Your task to perform on an android device: What is the recent news? Image 0: 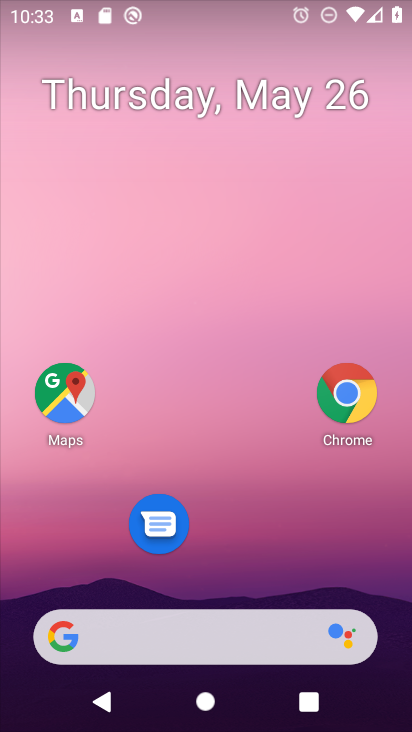
Step 0: click (185, 638)
Your task to perform on an android device: What is the recent news? Image 1: 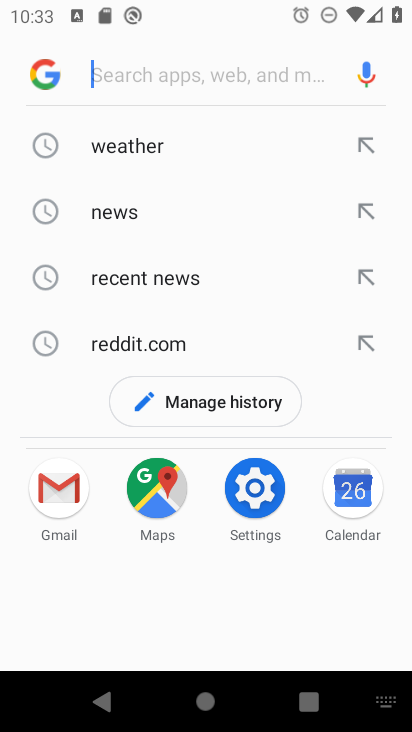
Step 1: click (120, 270)
Your task to perform on an android device: What is the recent news? Image 2: 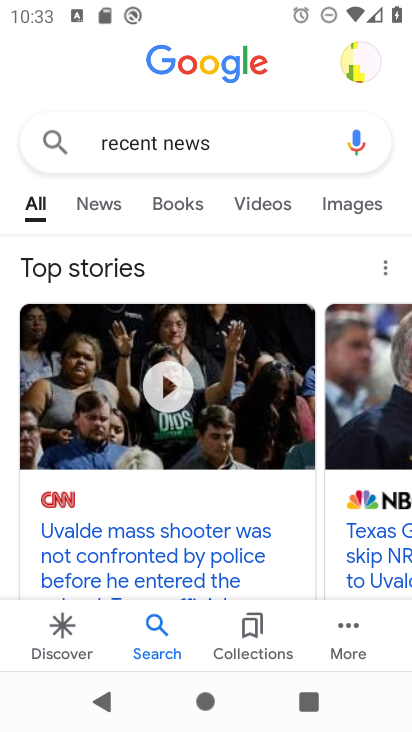
Step 2: task complete